Your task to perform on an android device: open app "Indeed Job Search" Image 0: 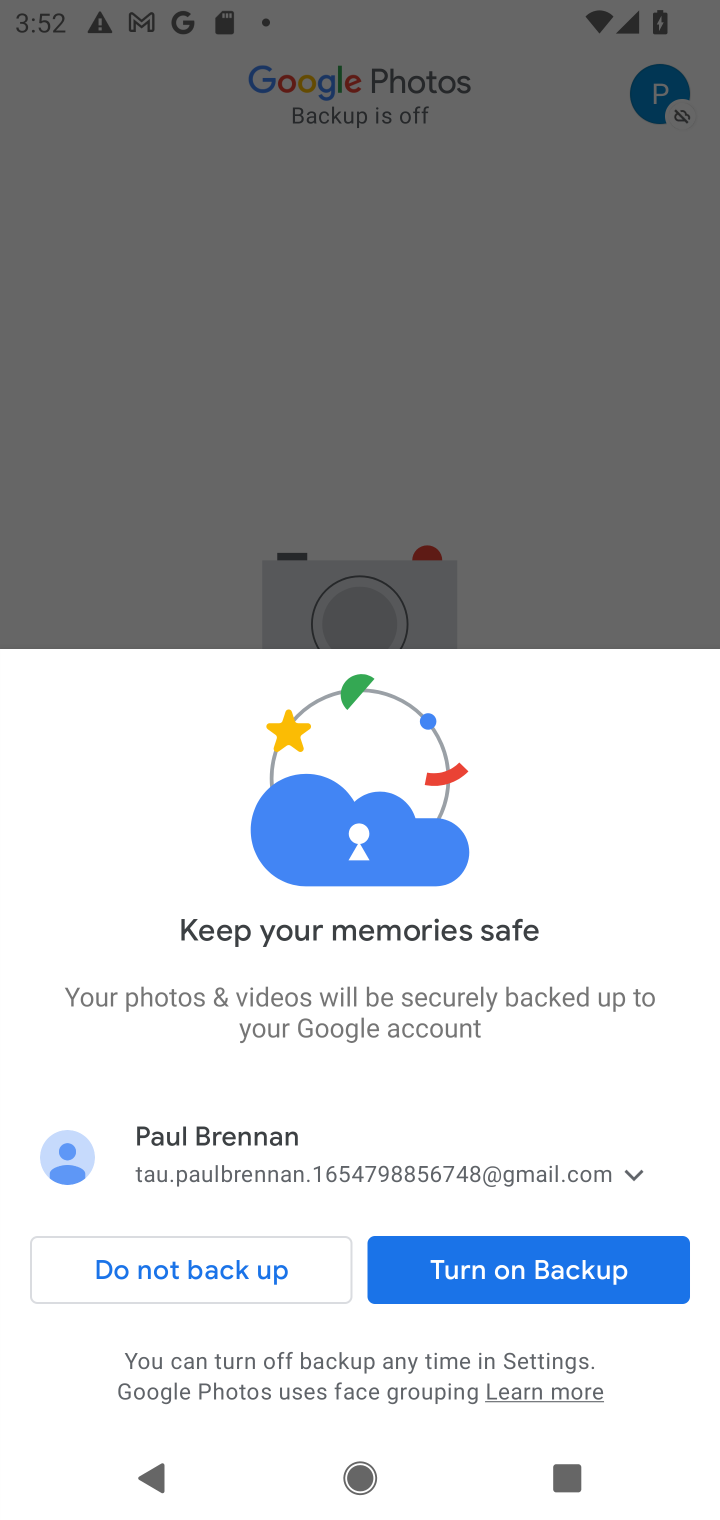
Step 0: press home button
Your task to perform on an android device: open app "Indeed Job Search" Image 1: 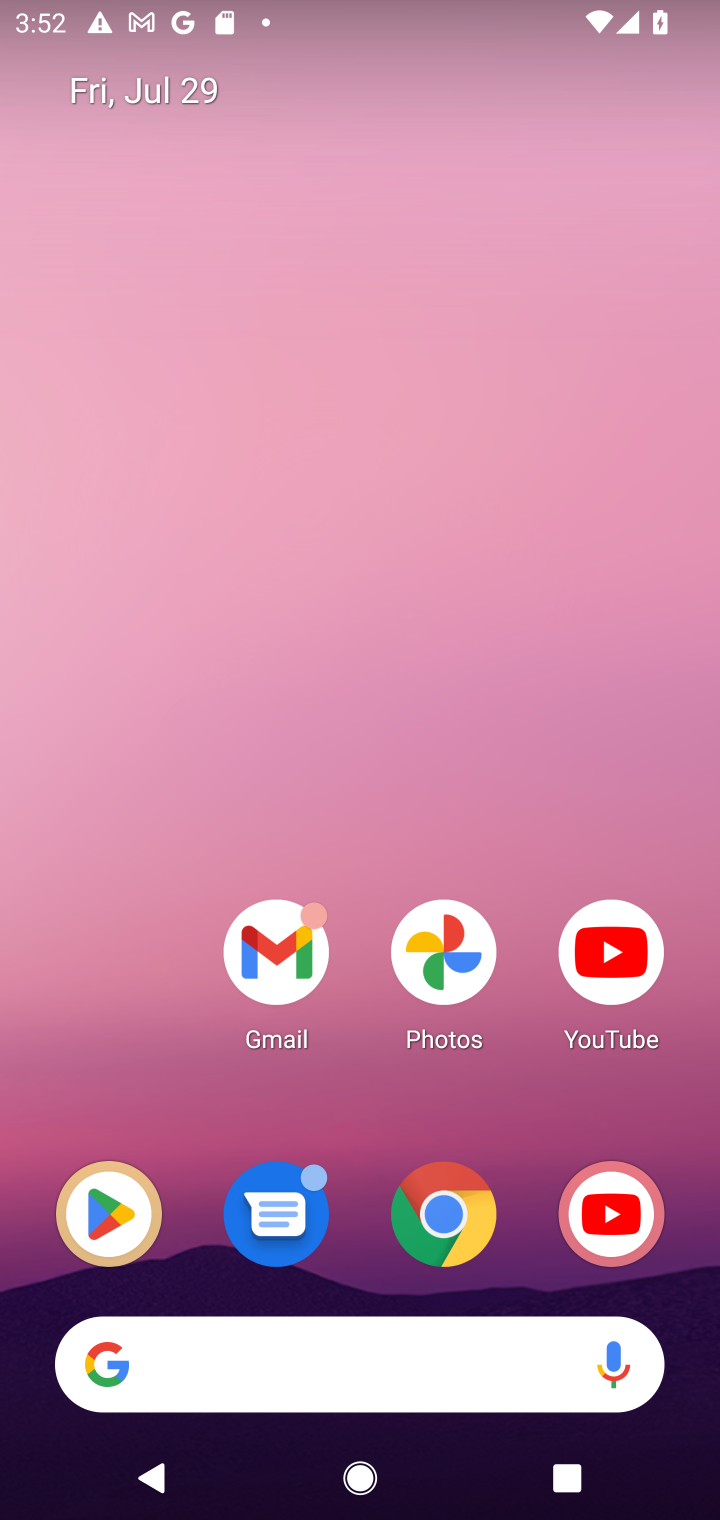
Step 1: click (86, 1185)
Your task to perform on an android device: open app "Indeed Job Search" Image 2: 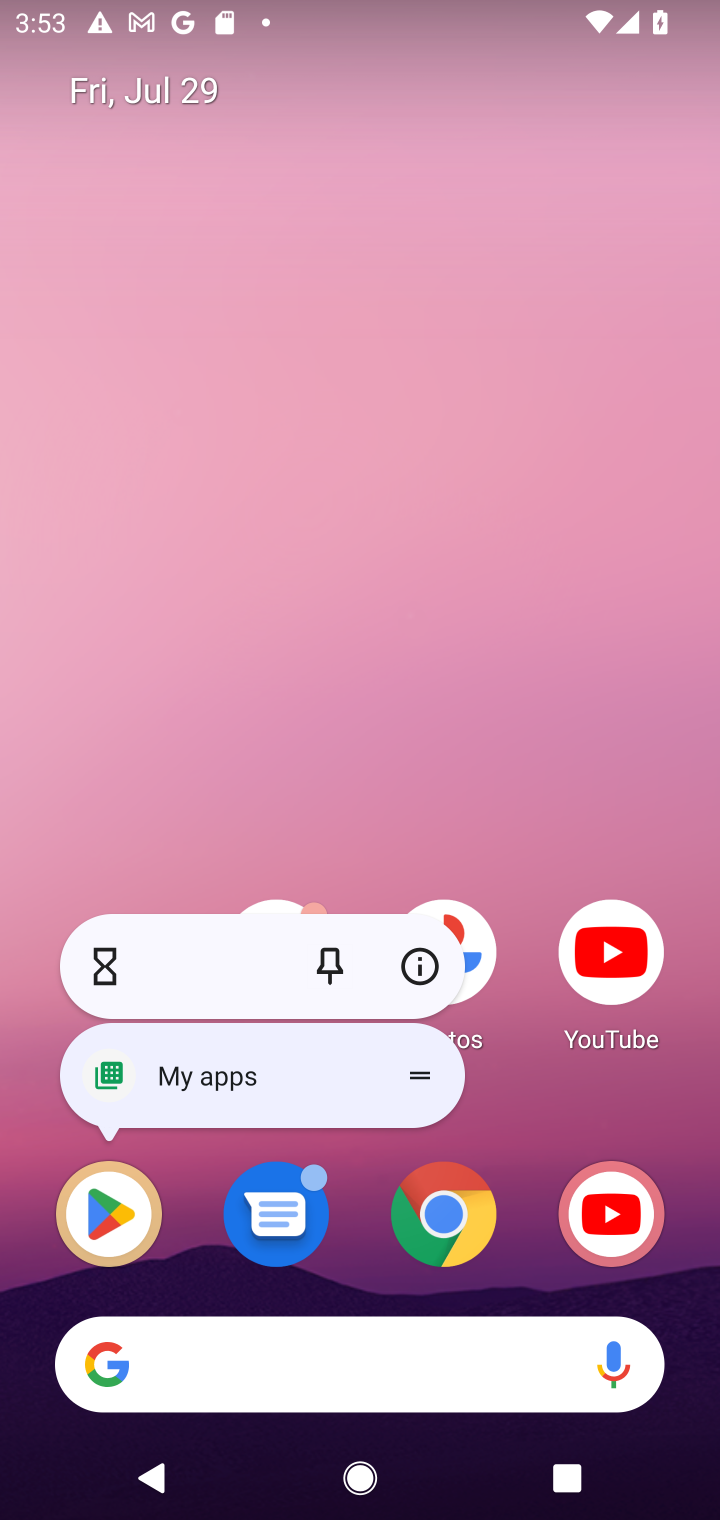
Step 2: click (115, 1223)
Your task to perform on an android device: open app "Indeed Job Search" Image 3: 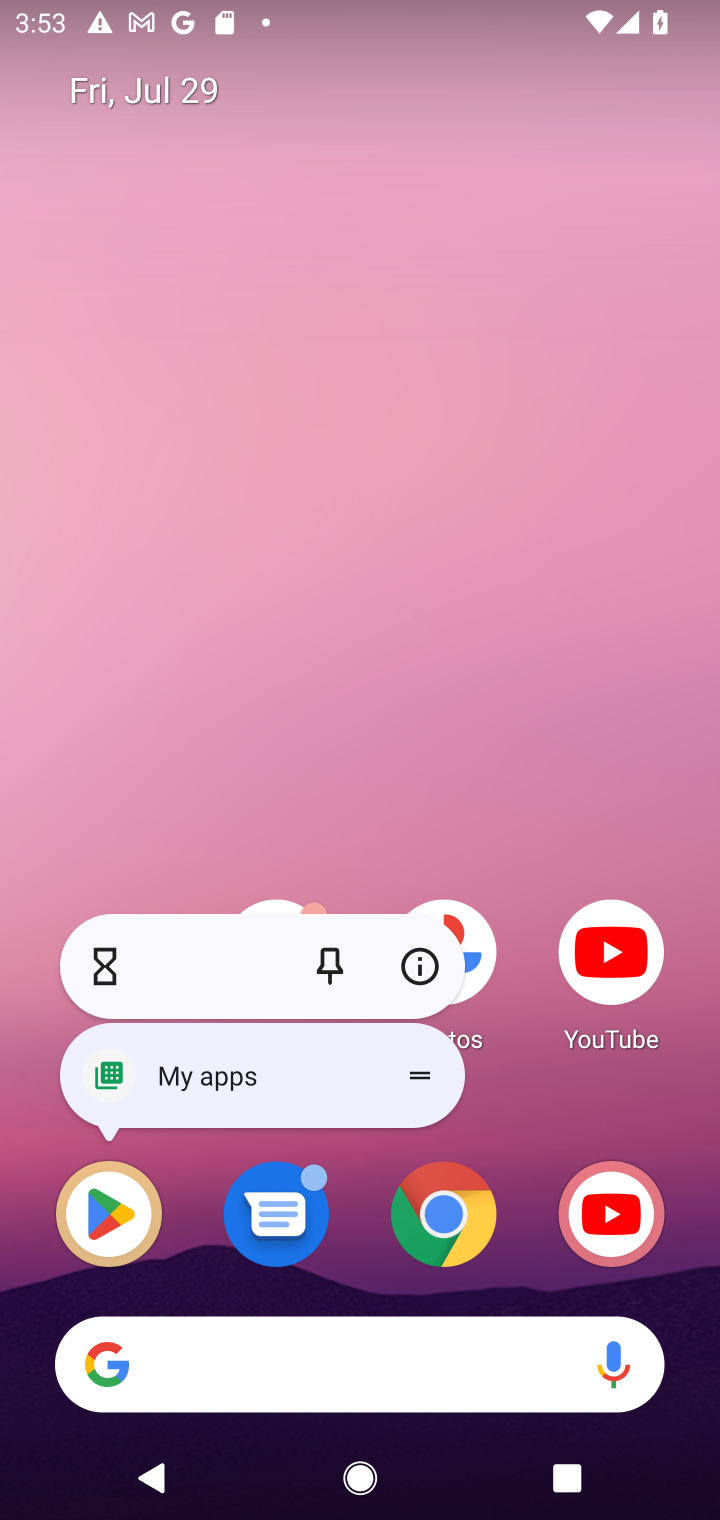
Step 3: click (117, 1223)
Your task to perform on an android device: open app "Indeed Job Search" Image 4: 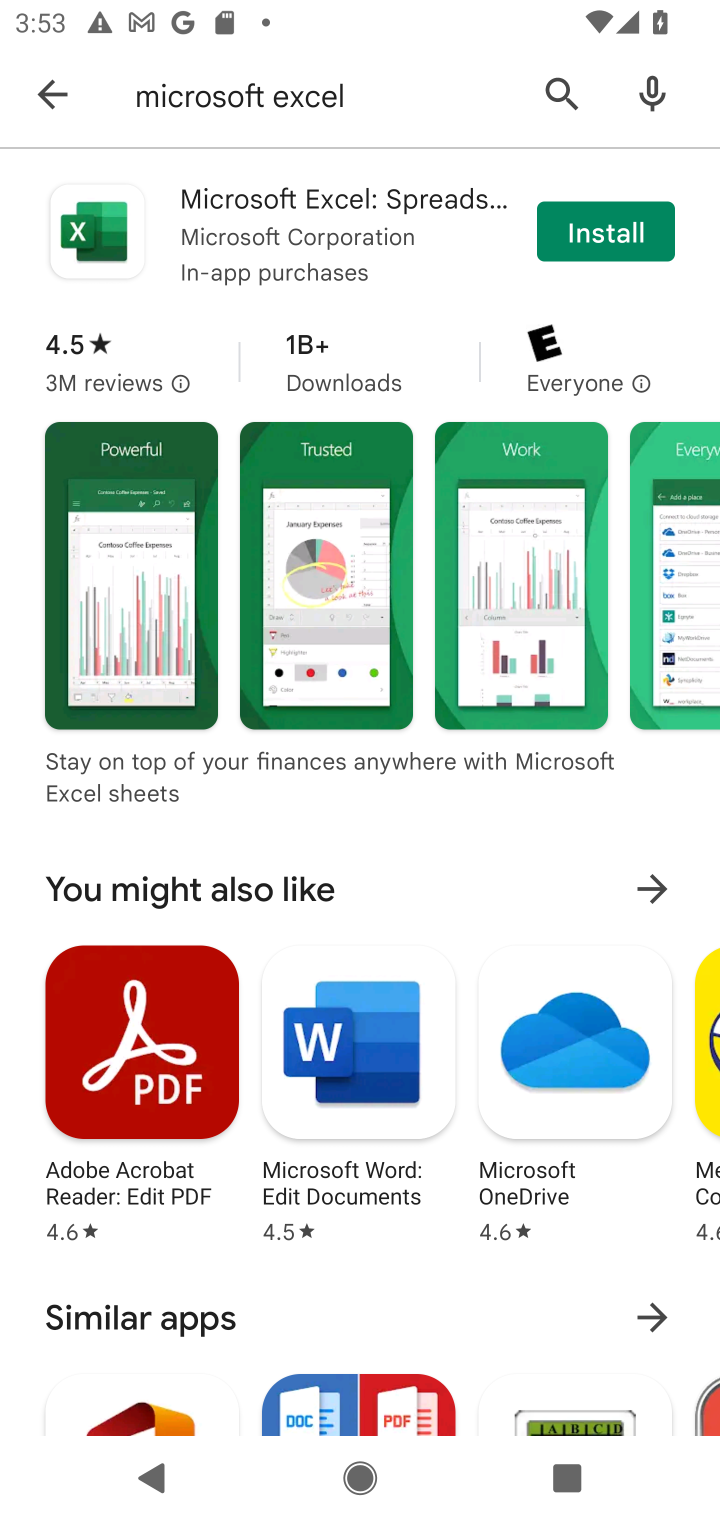
Step 4: click (373, 105)
Your task to perform on an android device: open app "Indeed Job Search" Image 5: 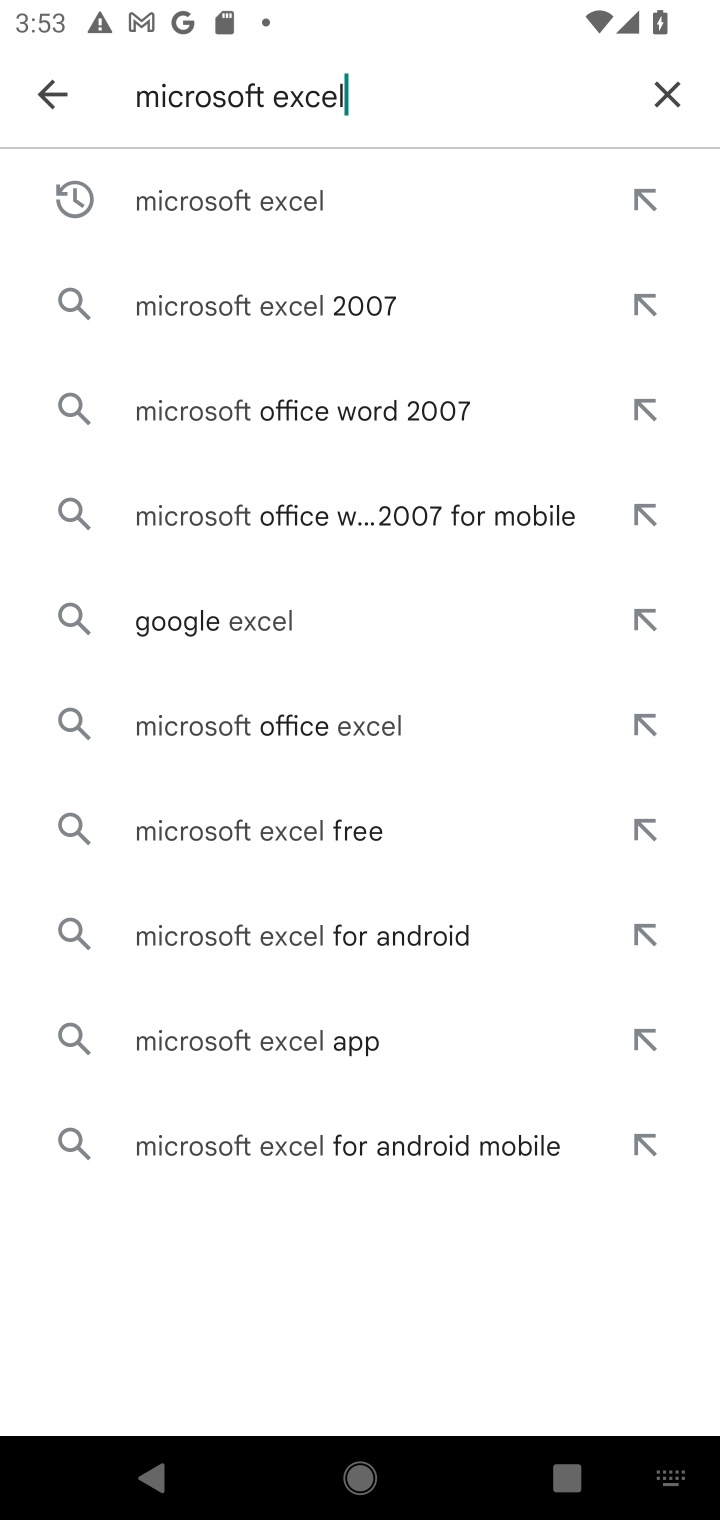
Step 5: click (664, 83)
Your task to perform on an android device: open app "Indeed Job Search" Image 6: 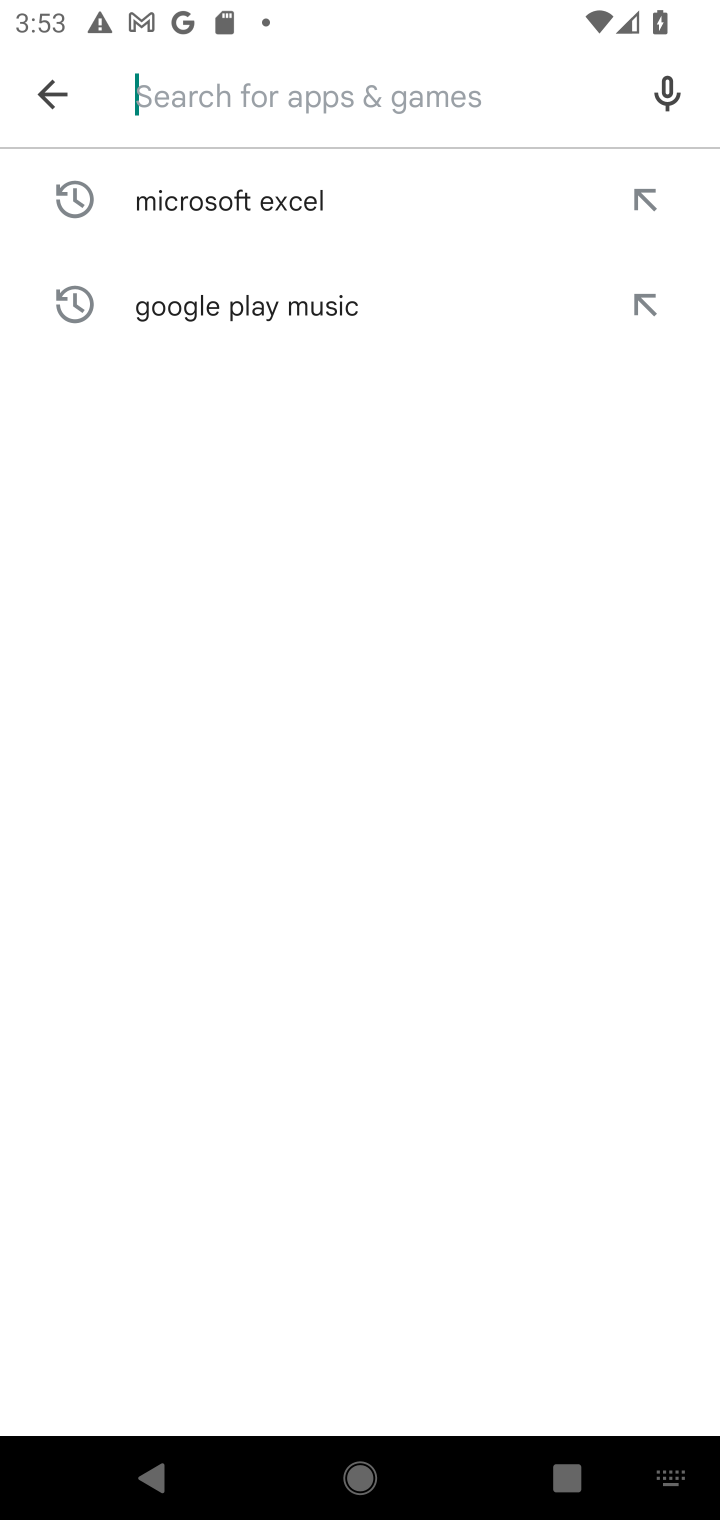
Step 6: type "indeed JobSearch"
Your task to perform on an android device: open app "Indeed Job Search" Image 7: 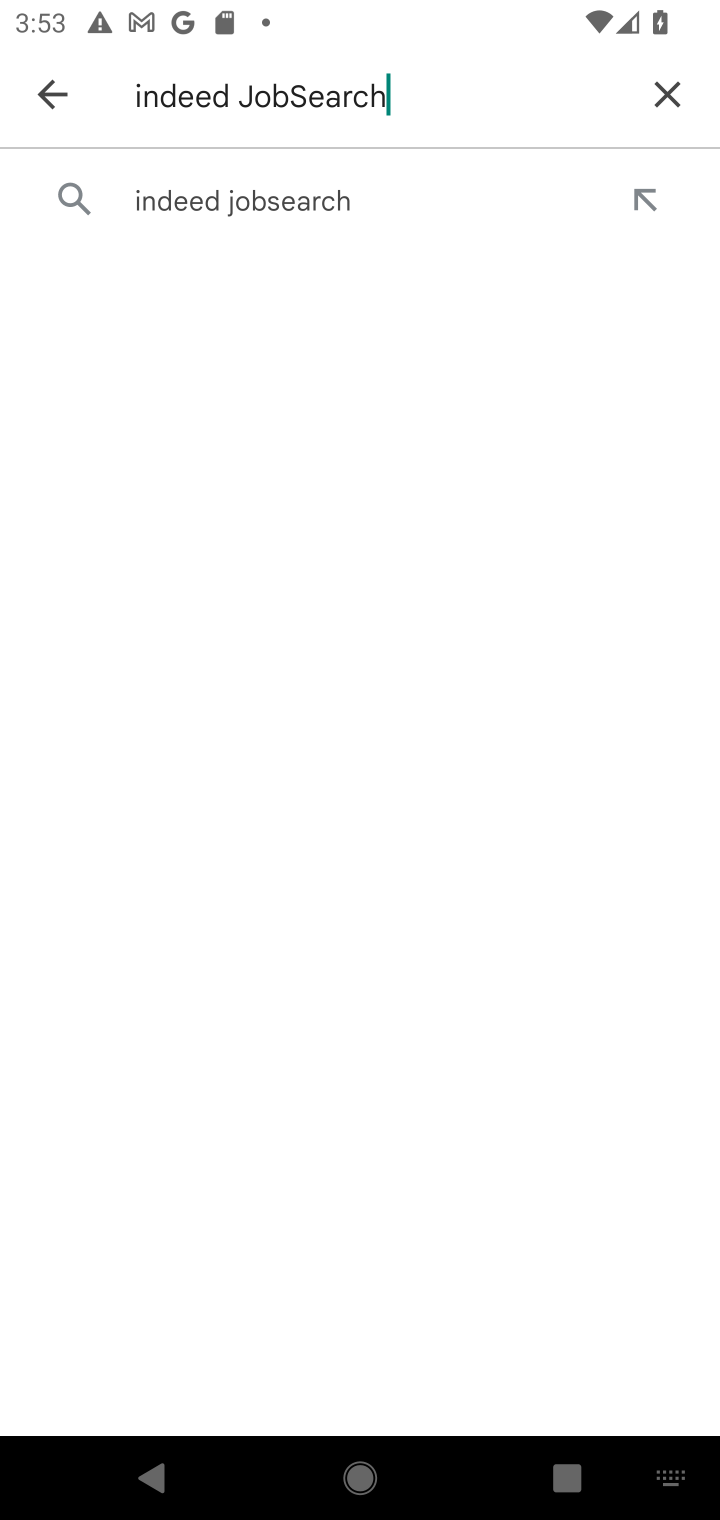
Step 7: click (260, 226)
Your task to perform on an android device: open app "Indeed Job Search" Image 8: 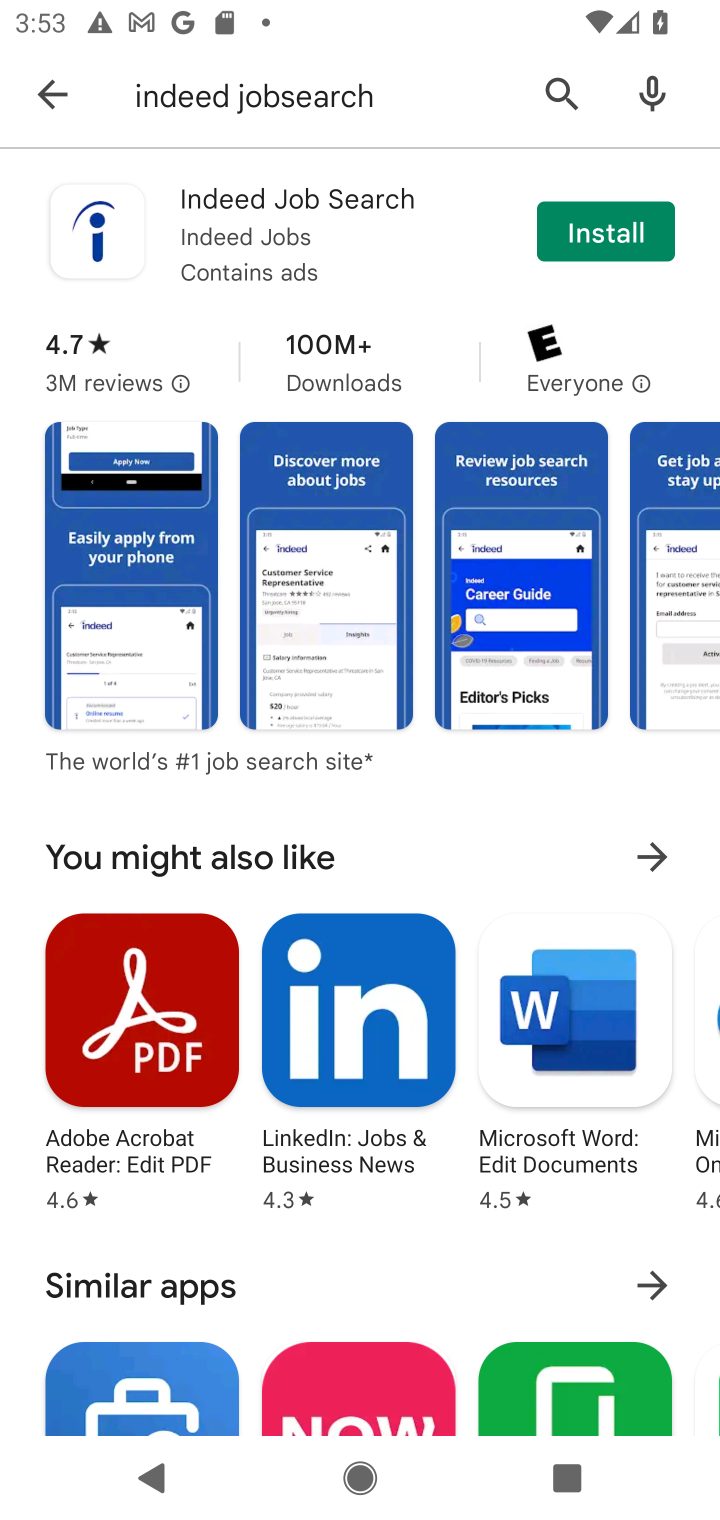
Step 8: click (600, 218)
Your task to perform on an android device: open app "Indeed Job Search" Image 9: 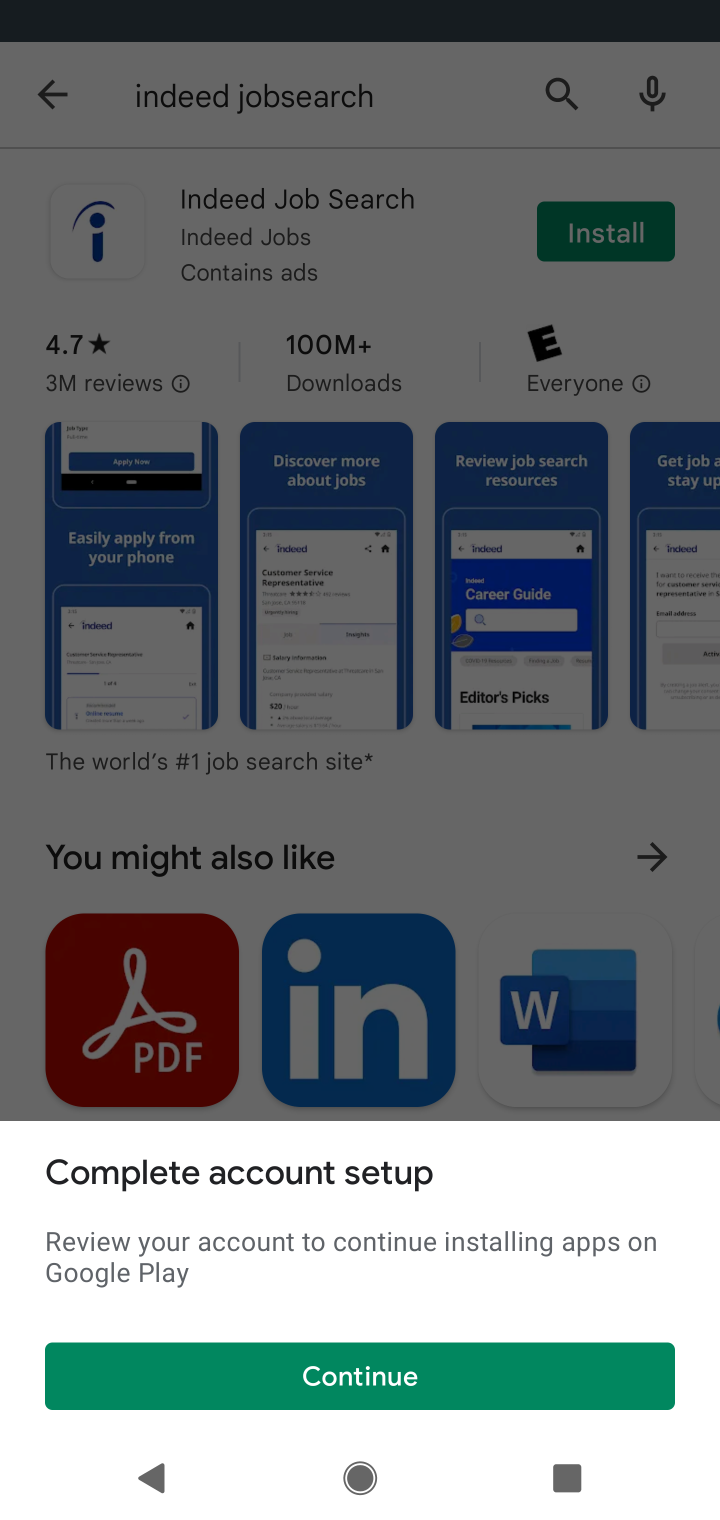
Step 9: task complete